Your task to perform on an android device: toggle pop-ups in chrome Image 0: 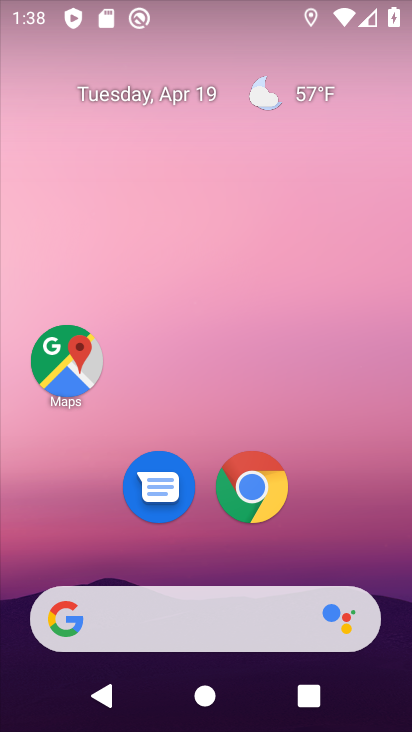
Step 0: drag from (348, 361) to (341, 39)
Your task to perform on an android device: toggle pop-ups in chrome Image 1: 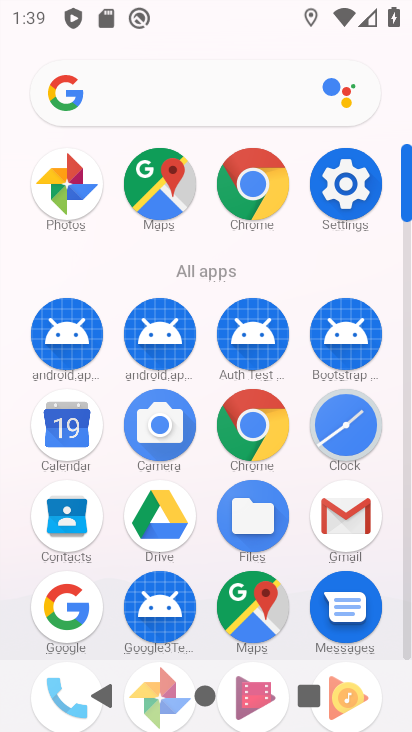
Step 1: click (255, 419)
Your task to perform on an android device: toggle pop-ups in chrome Image 2: 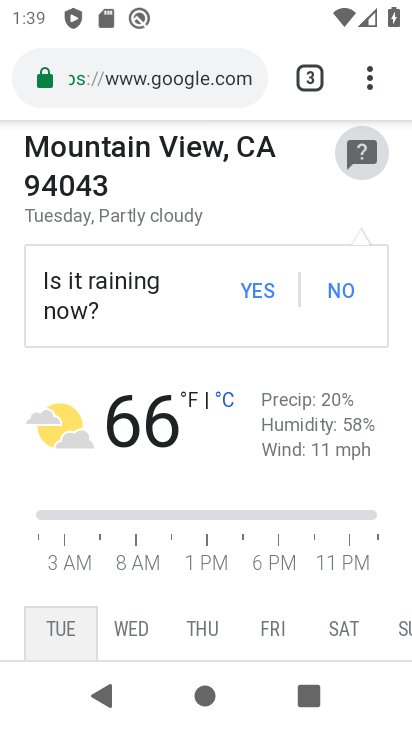
Step 2: click (369, 82)
Your task to perform on an android device: toggle pop-ups in chrome Image 3: 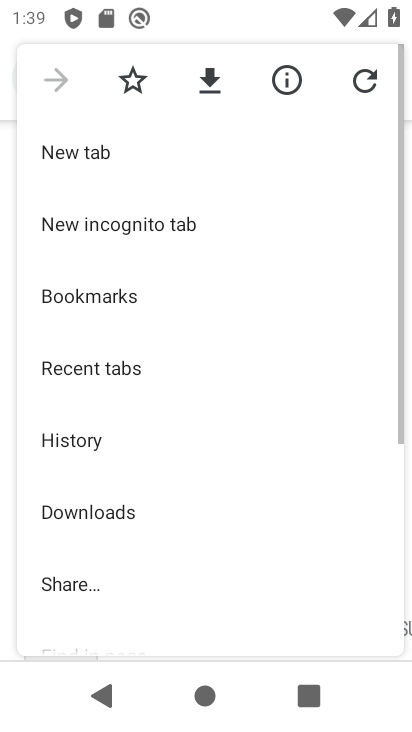
Step 3: drag from (173, 574) to (286, 168)
Your task to perform on an android device: toggle pop-ups in chrome Image 4: 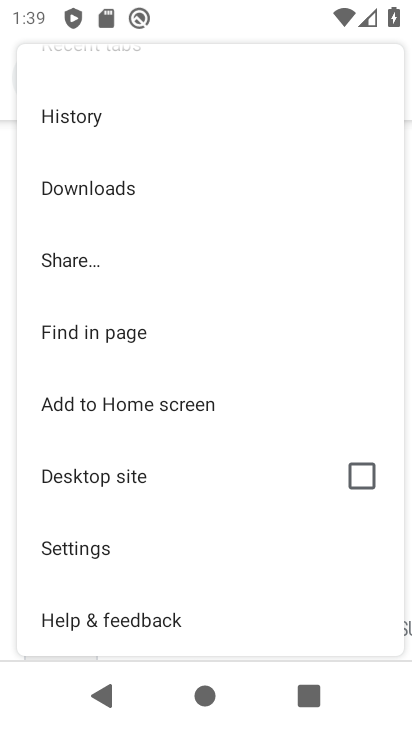
Step 4: click (108, 545)
Your task to perform on an android device: toggle pop-ups in chrome Image 5: 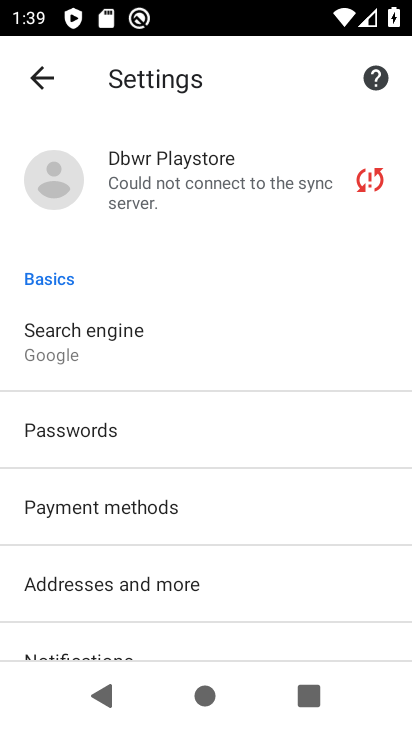
Step 5: drag from (233, 578) to (241, 243)
Your task to perform on an android device: toggle pop-ups in chrome Image 6: 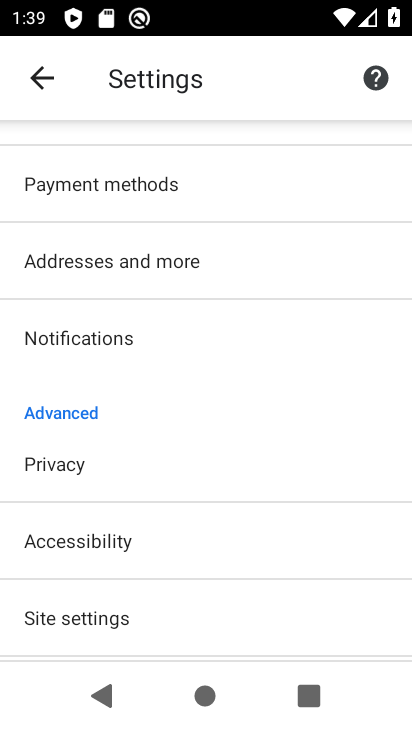
Step 6: click (109, 618)
Your task to perform on an android device: toggle pop-ups in chrome Image 7: 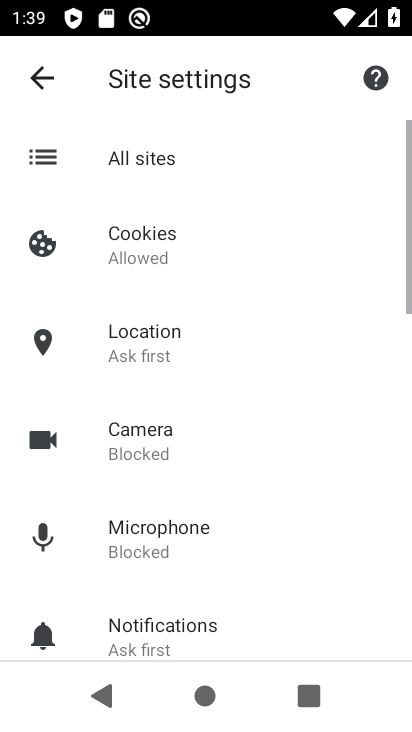
Step 7: drag from (254, 583) to (289, 213)
Your task to perform on an android device: toggle pop-ups in chrome Image 8: 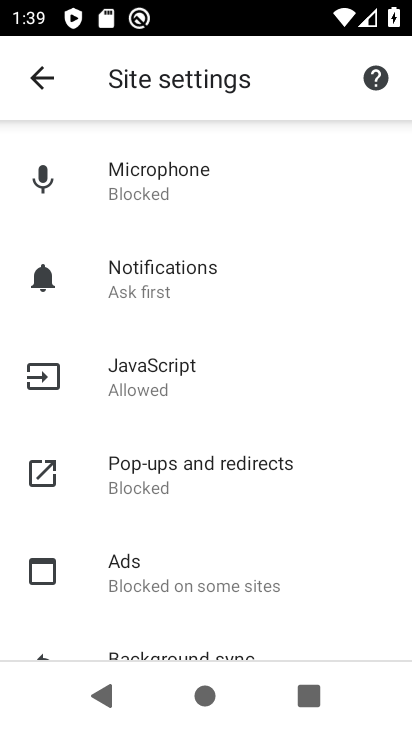
Step 8: click (191, 447)
Your task to perform on an android device: toggle pop-ups in chrome Image 9: 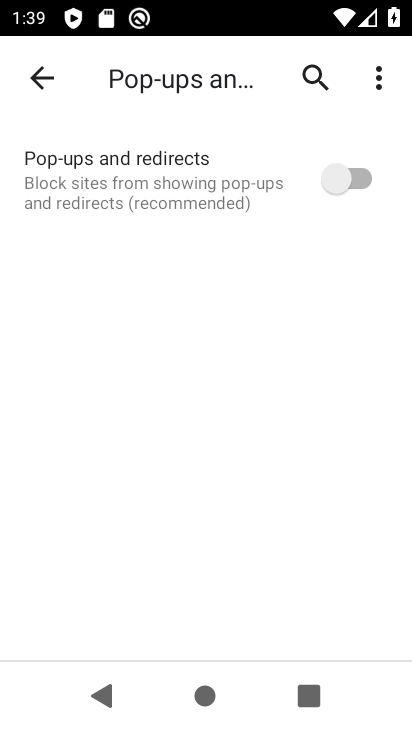
Step 9: click (358, 180)
Your task to perform on an android device: toggle pop-ups in chrome Image 10: 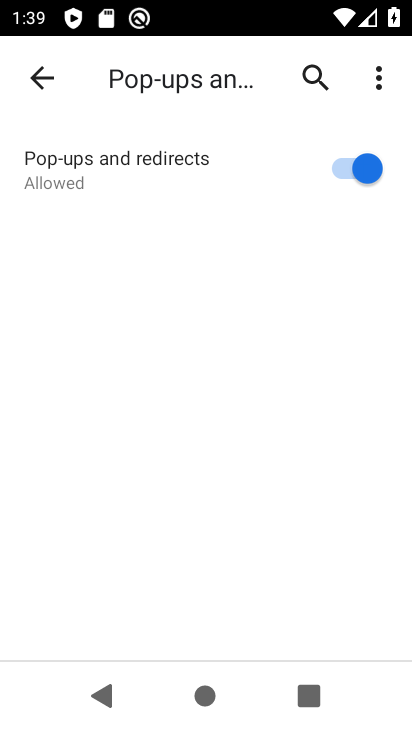
Step 10: task complete